Your task to perform on an android device: Search for vegetarian restaurants on Maps Image 0: 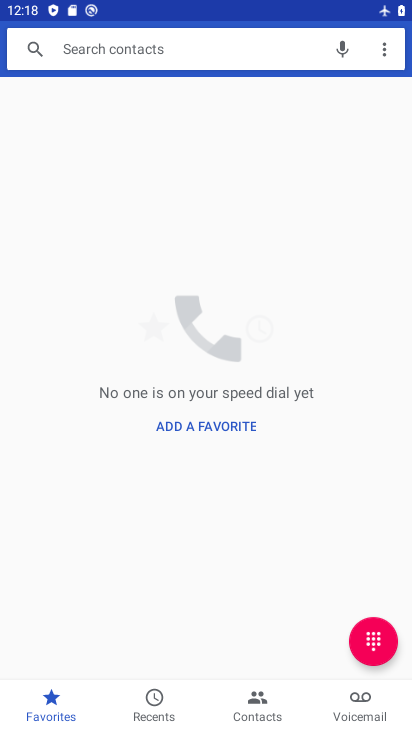
Step 0: press back button
Your task to perform on an android device: Search for vegetarian restaurants on Maps Image 1: 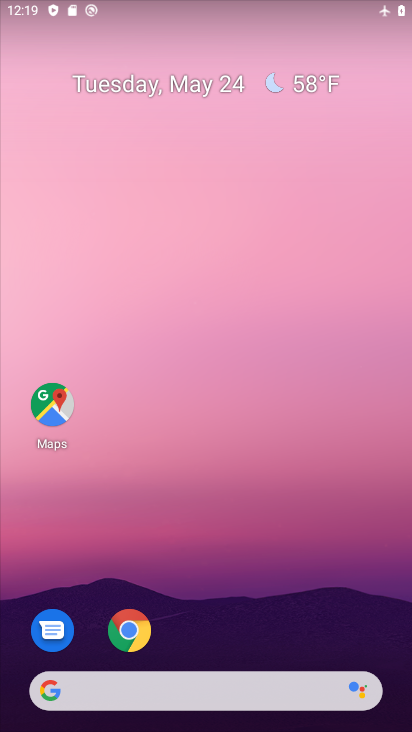
Step 1: click (52, 408)
Your task to perform on an android device: Search for vegetarian restaurants on Maps Image 2: 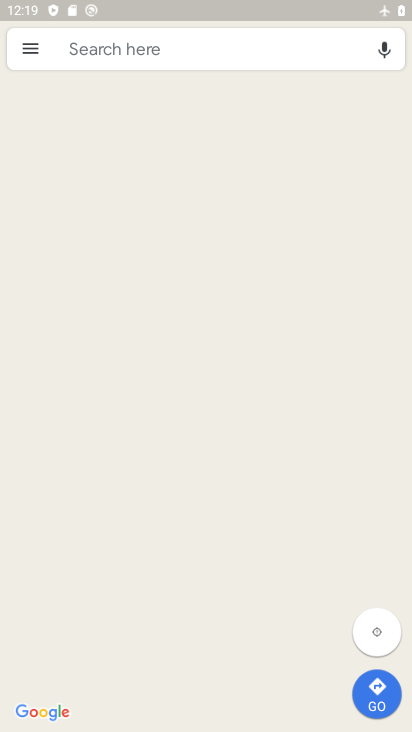
Step 2: click (116, 49)
Your task to perform on an android device: Search for vegetarian restaurants on Maps Image 3: 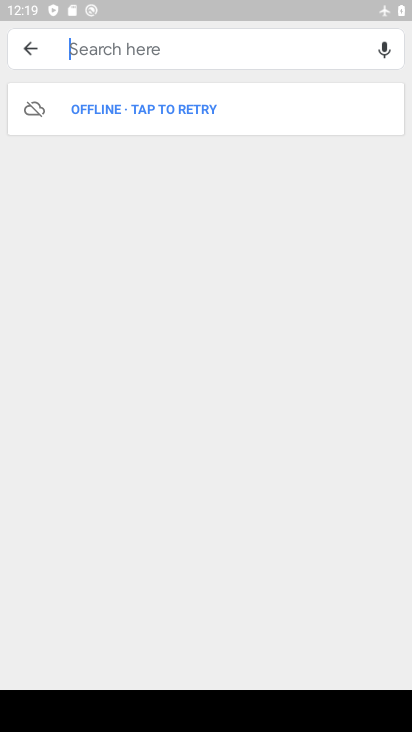
Step 3: type "vegetarian restaurants"
Your task to perform on an android device: Search for vegetarian restaurants on Maps Image 4: 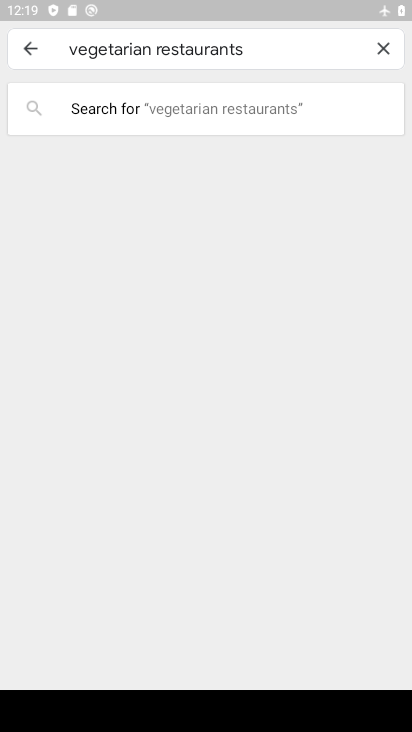
Step 4: task complete